Your task to perform on an android device: turn notification dots off Image 0: 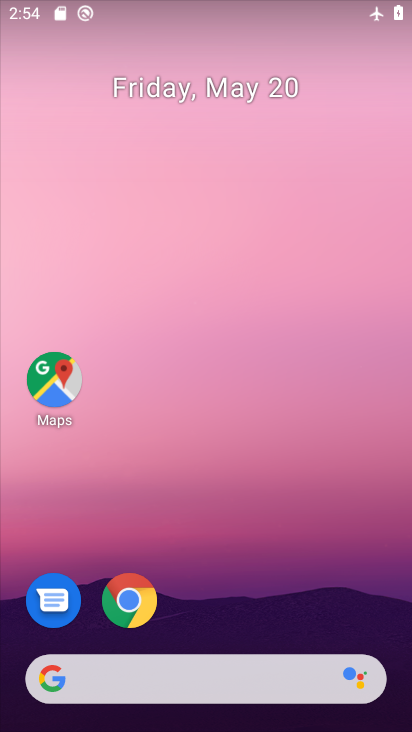
Step 0: drag from (251, 549) to (107, 0)
Your task to perform on an android device: turn notification dots off Image 1: 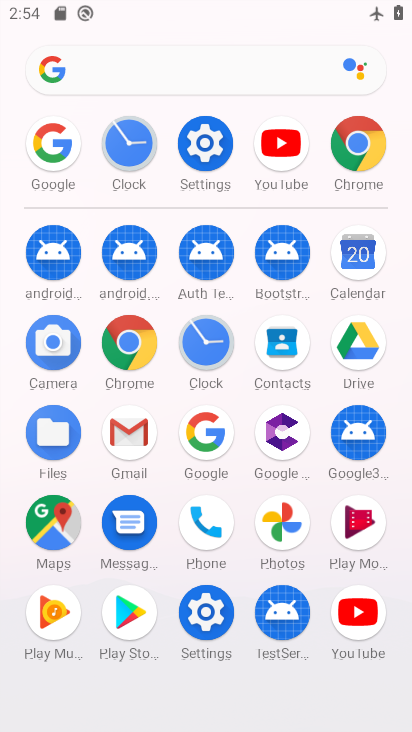
Step 1: click (204, 152)
Your task to perform on an android device: turn notification dots off Image 2: 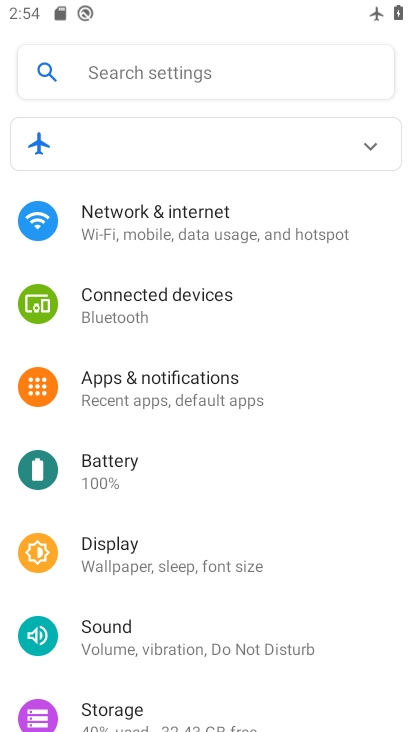
Step 2: click (171, 384)
Your task to perform on an android device: turn notification dots off Image 3: 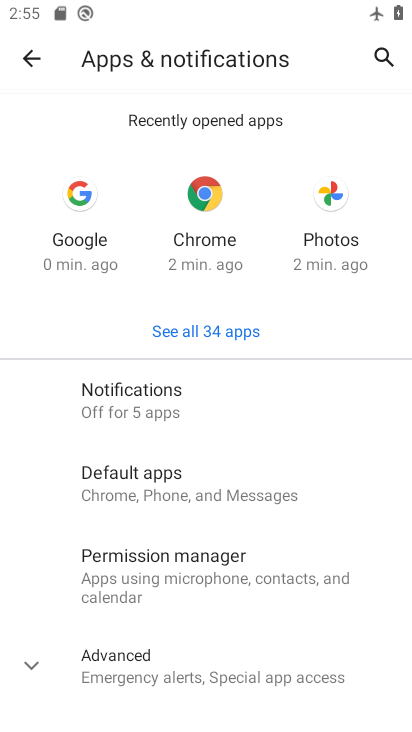
Step 3: click (213, 395)
Your task to perform on an android device: turn notification dots off Image 4: 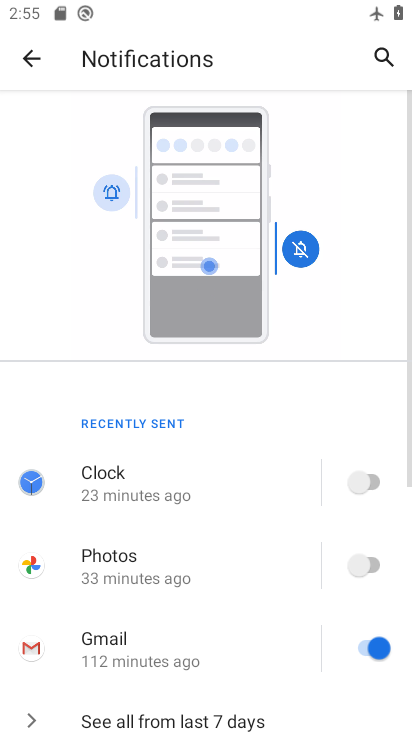
Step 4: drag from (288, 574) to (265, 200)
Your task to perform on an android device: turn notification dots off Image 5: 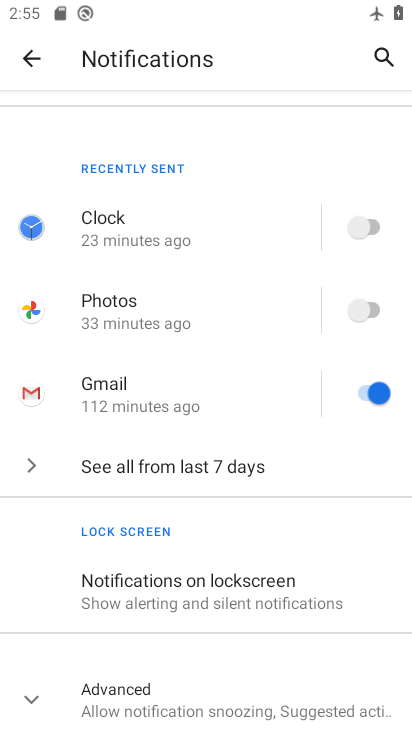
Step 5: drag from (248, 625) to (236, 306)
Your task to perform on an android device: turn notification dots off Image 6: 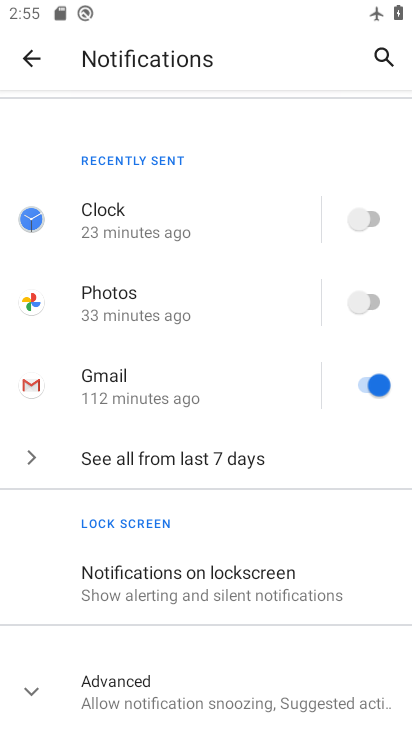
Step 6: click (237, 677)
Your task to perform on an android device: turn notification dots off Image 7: 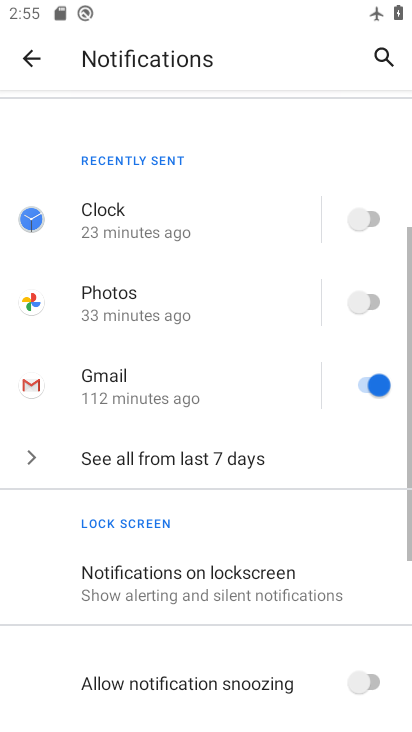
Step 7: task complete